Your task to perform on an android device: change the clock display to analog Image 0: 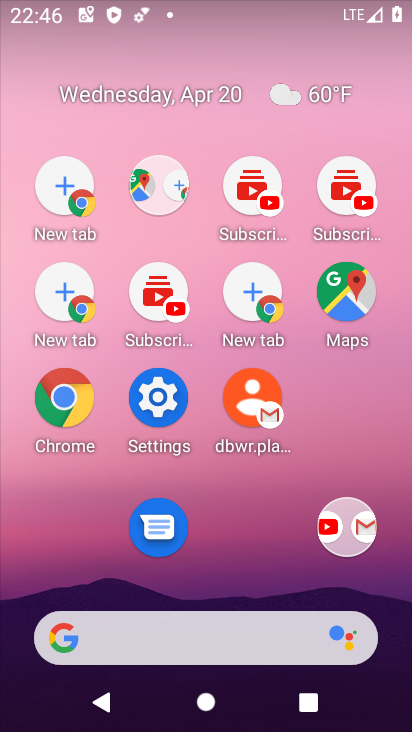
Step 0: drag from (382, 698) to (230, 191)
Your task to perform on an android device: change the clock display to analog Image 1: 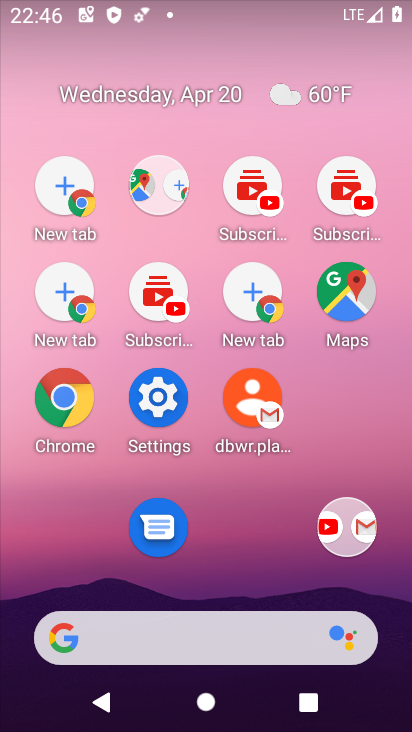
Step 1: drag from (228, 252) to (199, 170)
Your task to perform on an android device: change the clock display to analog Image 2: 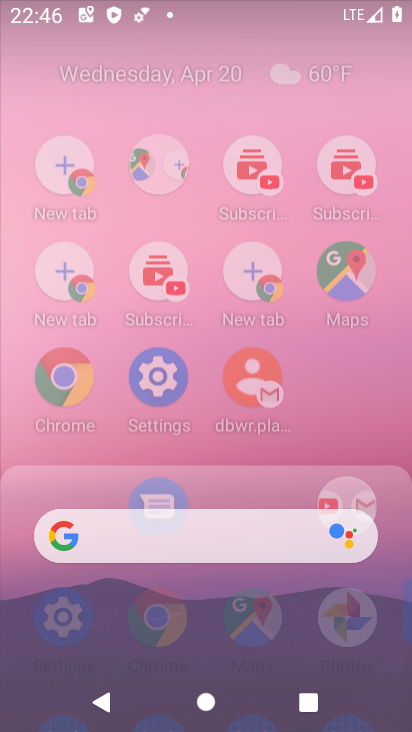
Step 2: drag from (288, 519) to (85, 18)
Your task to perform on an android device: change the clock display to analog Image 3: 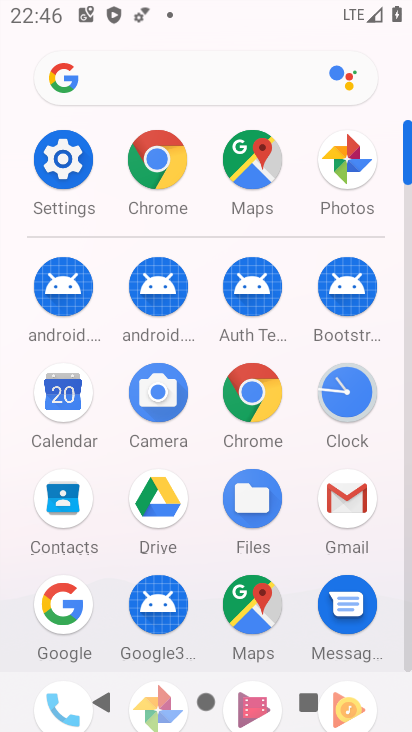
Step 3: drag from (233, 467) to (183, 51)
Your task to perform on an android device: change the clock display to analog Image 4: 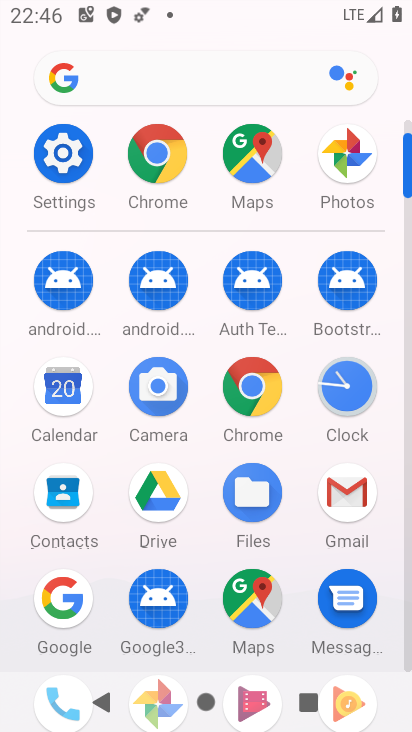
Step 4: click (343, 395)
Your task to perform on an android device: change the clock display to analog Image 5: 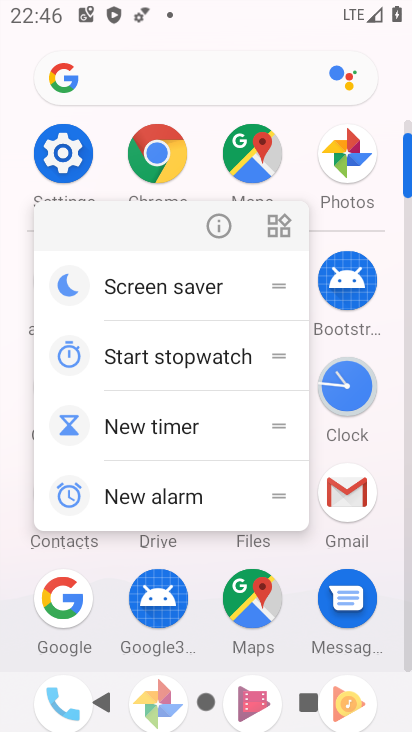
Step 5: click (359, 386)
Your task to perform on an android device: change the clock display to analog Image 6: 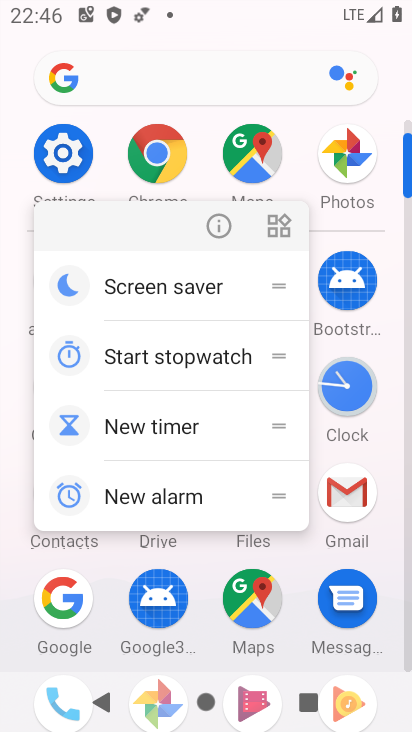
Step 6: drag from (353, 376) to (292, 368)
Your task to perform on an android device: change the clock display to analog Image 7: 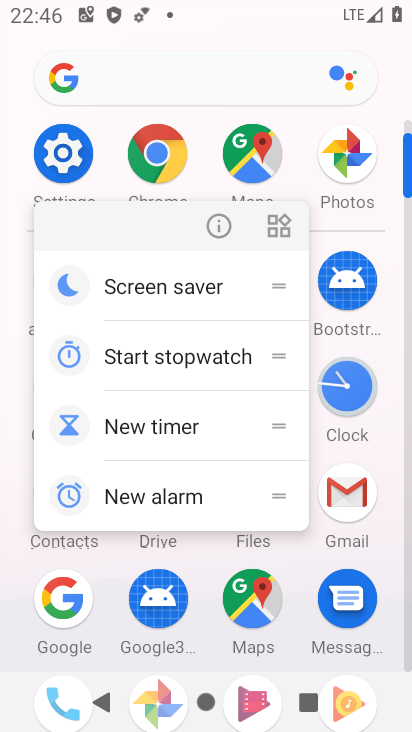
Step 7: click (332, 366)
Your task to perform on an android device: change the clock display to analog Image 8: 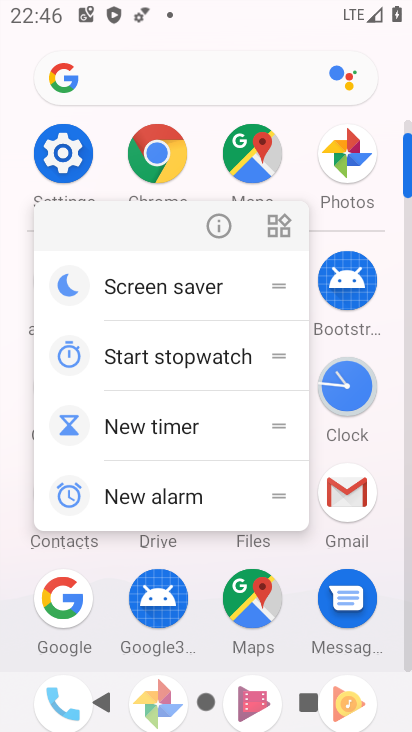
Step 8: click (339, 378)
Your task to perform on an android device: change the clock display to analog Image 9: 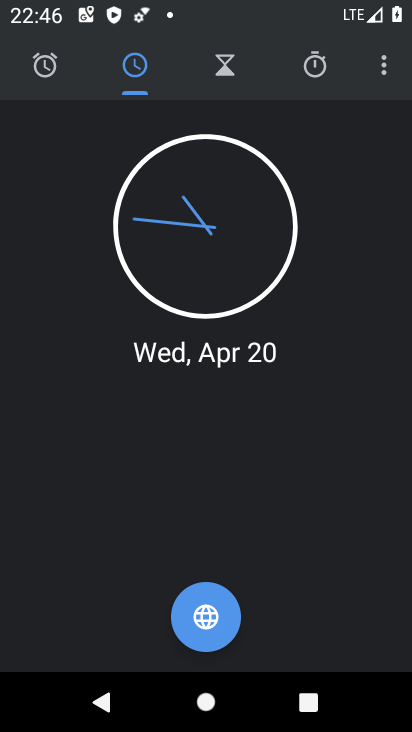
Step 9: click (342, 375)
Your task to perform on an android device: change the clock display to analog Image 10: 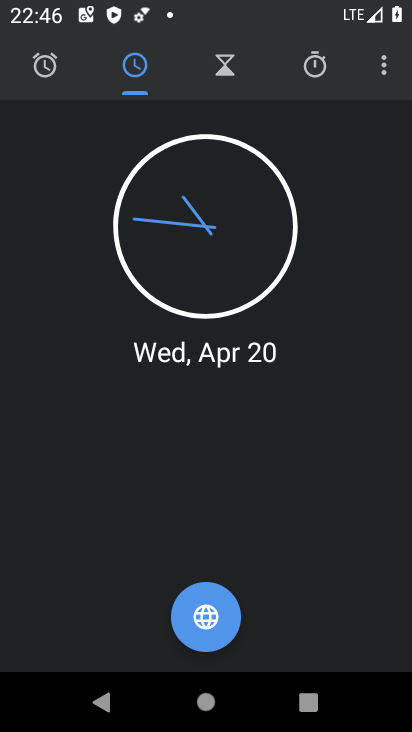
Step 10: click (387, 61)
Your task to perform on an android device: change the clock display to analog Image 11: 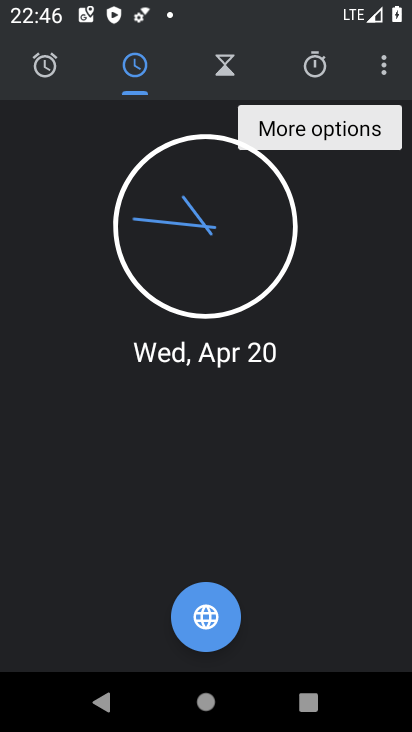
Step 11: click (388, 68)
Your task to perform on an android device: change the clock display to analog Image 12: 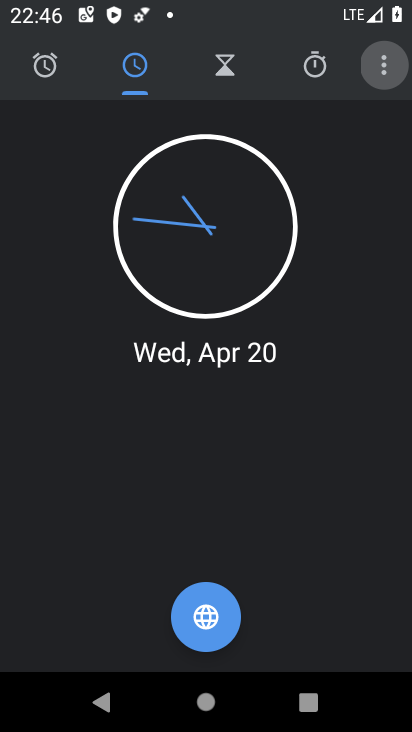
Step 12: click (388, 73)
Your task to perform on an android device: change the clock display to analog Image 13: 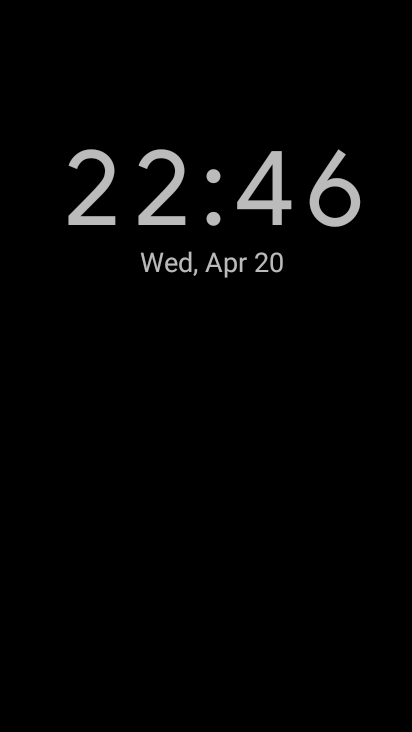
Step 13: drag from (279, 630) to (185, 97)
Your task to perform on an android device: change the clock display to analog Image 14: 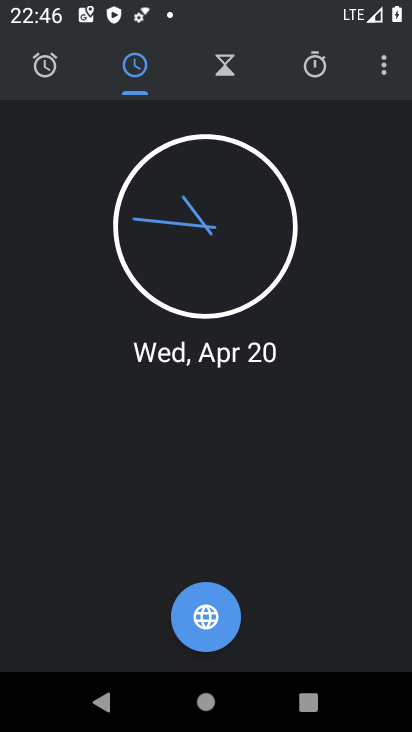
Step 14: click (377, 67)
Your task to perform on an android device: change the clock display to analog Image 15: 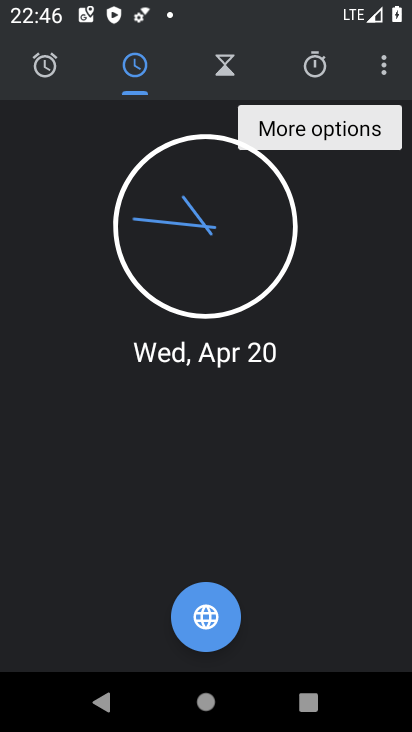
Step 15: click (377, 67)
Your task to perform on an android device: change the clock display to analog Image 16: 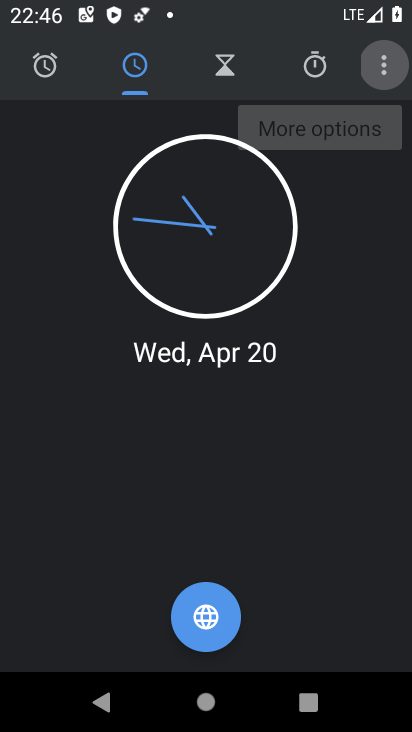
Step 16: click (377, 67)
Your task to perform on an android device: change the clock display to analog Image 17: 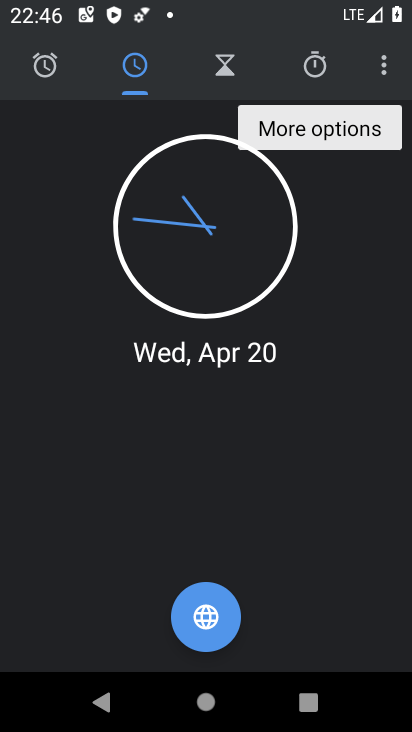
Step 17: click (378, 66)
Your task to perform on an android device: change the clock display to analog Image 18: 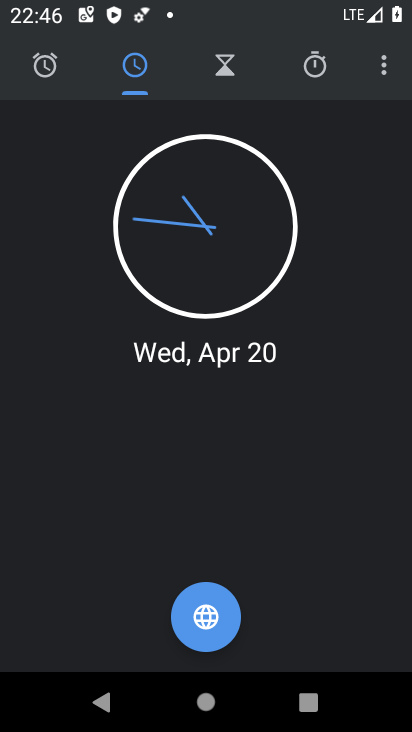
Step 18: click (388, 68)
Your task to perform on an android device: change the clock display to analog Image 19: 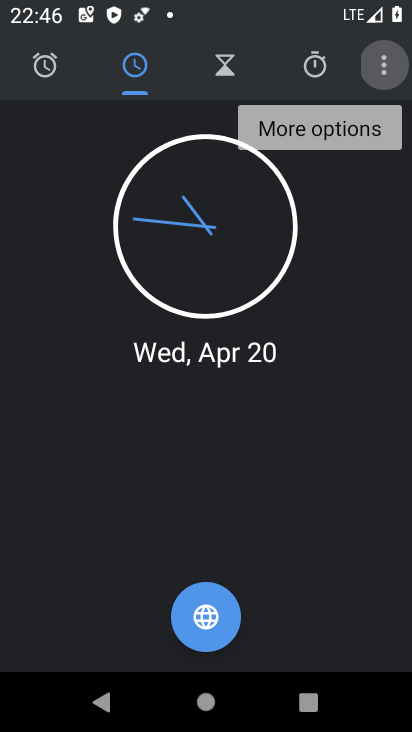
Step 19: drag from (388, 64) to (229, 118)
Your task to perform on an android device: change the clock display to analog Image 20: 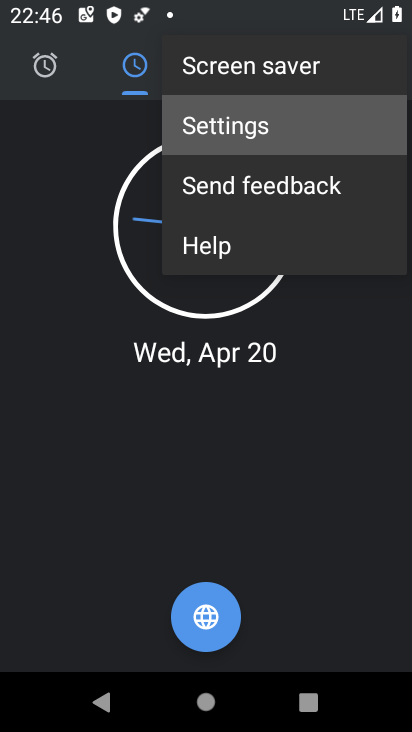
Step 20: click (229, 118)
Your task to perform on an android device: change the clock display to analog Image 21: 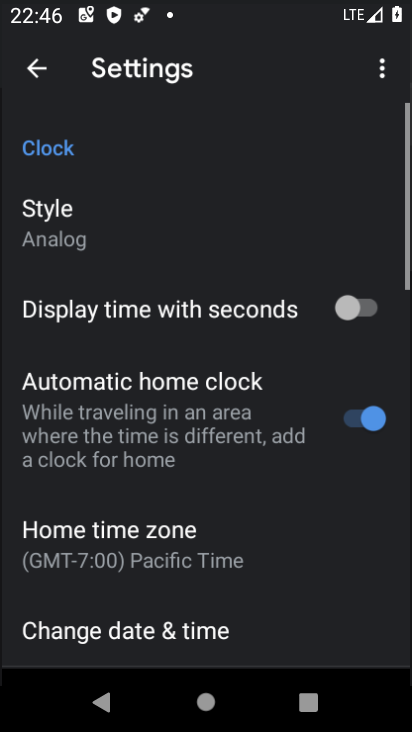
Step 21: click (229, 118)
Your task to perform on an android device: change the clock display to analog Image 22: 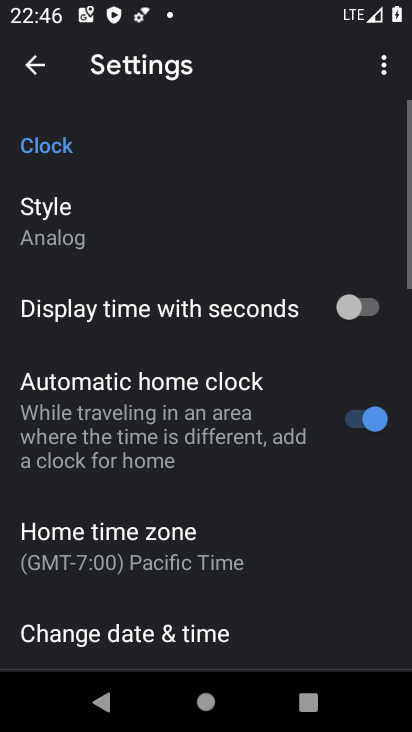
Step 22: click (114, 222)
Your task to perform on an android device: change the clock display to analog Image 23: 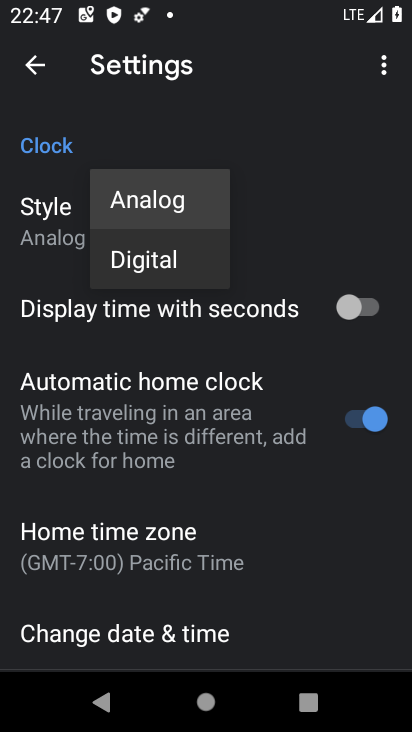
Step 23: click (170, 211)
Your task to perform on an android device: change the clock display to analog Image 24: 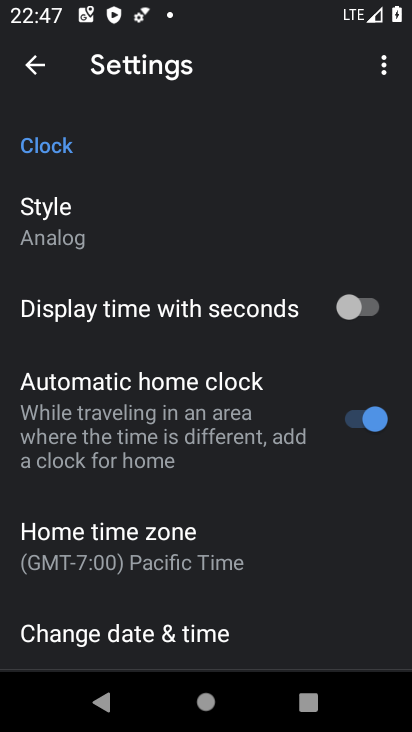
Step 24: task complete